Your task to perform on an android device: Open Google Chrome and click the shortcut for Amazon.com Image 0: 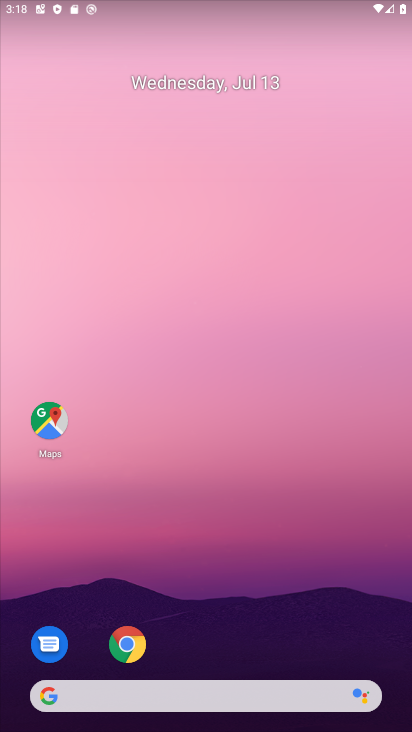
Step 0: click (105, 642)
Your task to perform on an android device: Open Google Chrome and click the shortcut for Amazon.com Image 1: 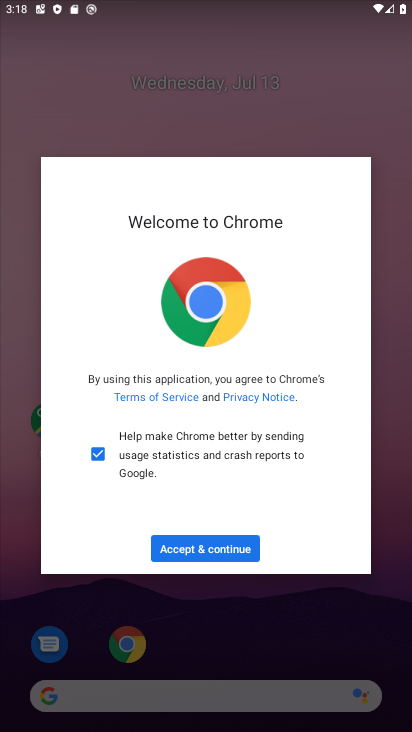
Step 1: click (239, 556)
Your task to perform on an android device: Open Google Chrome and click the shortcut for Amazon.com Image 2: 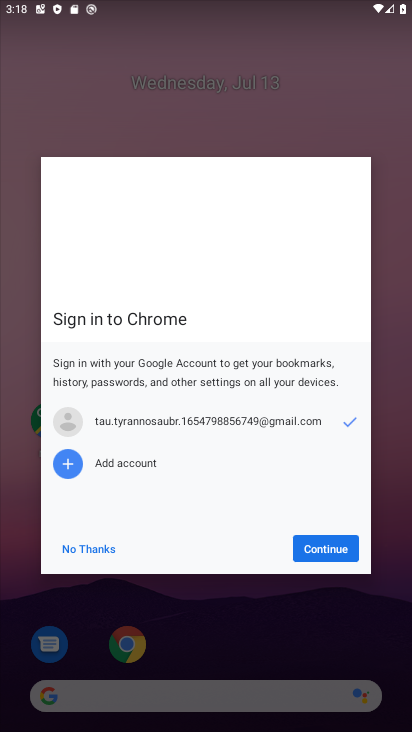
Step 2: click (304, 551)
Your task to perform on an android device: Open Google Chrome and click the shortcut for Amazon.com Image 3: 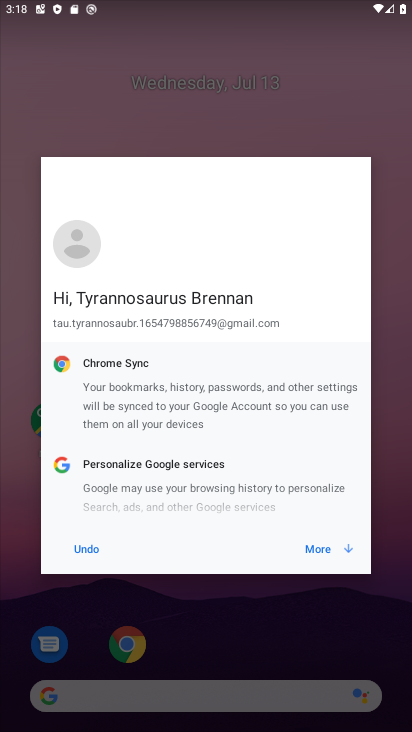
Step 3: click (306, 549)
Your task to perform on an android device: Open Google Chrome and click the shortcut for Amazon.com Image 4: 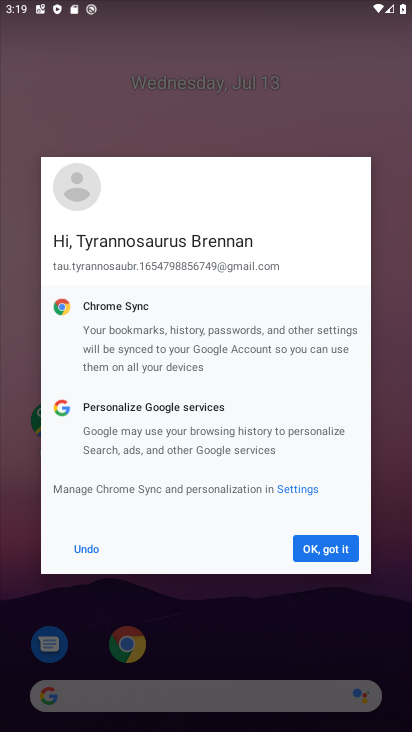
Step 4: click (321, 549)
Your task to perform on an android device: Open Google Chrome and click the shortcut for Amazon.com Image 5: 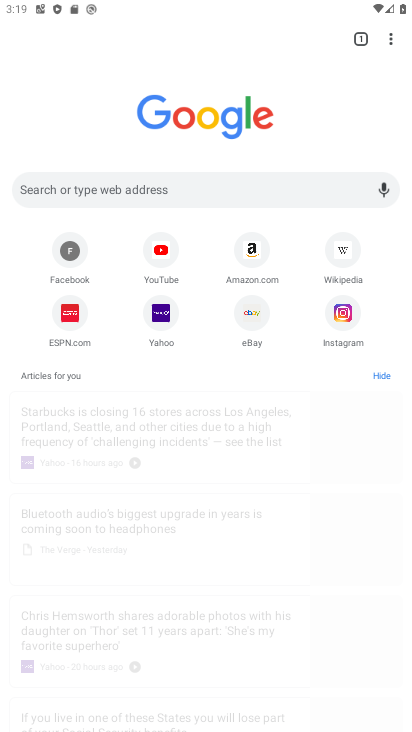
Step 5: click (243, 267)
Your task to perform on an android device: Open Google Chrome and click the shortcut for Amazon.com Image 6: 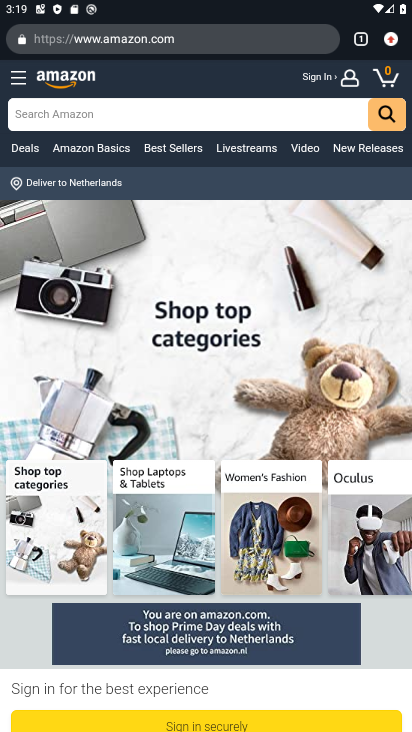
Step 6: task complete